Your task to perform on an android device: add a contact in the contacts app Image 0: 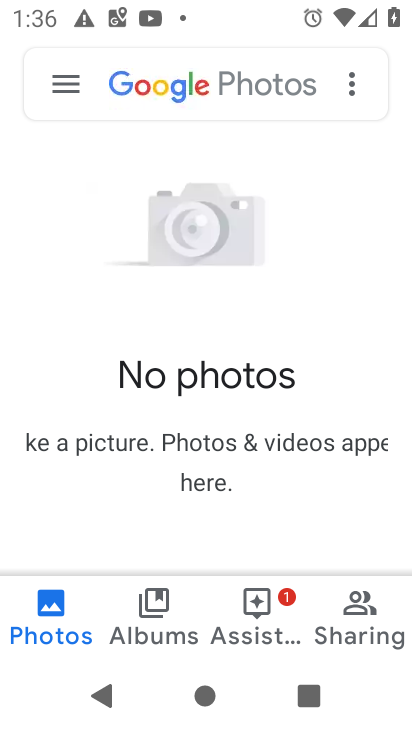
Step 0: press back button
Your task to perform on an android device: add a contact in the contacts app Image 1: 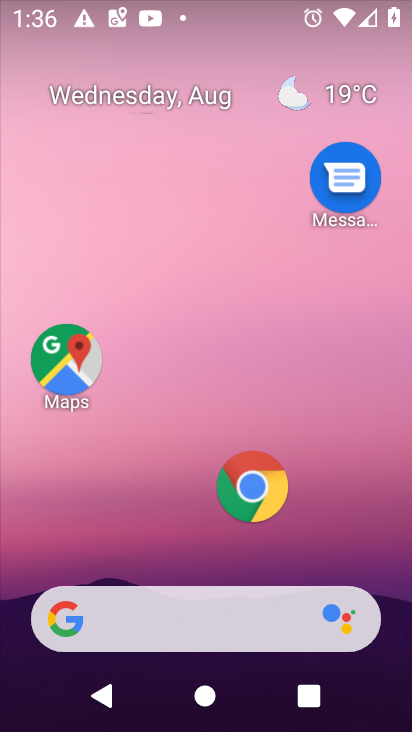
Step 1: drag from (169, 494) to (234, 20)
Your task to perform on an android device: add a contact in the contacts app Image 2: 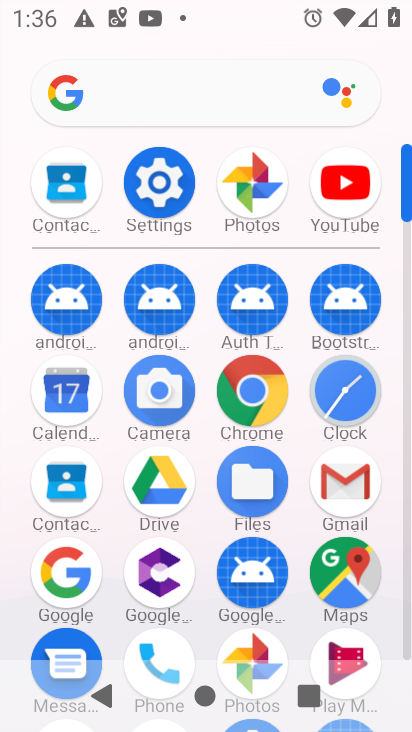
Step 2: click (62, 178)
Your task to perform on an android device: add a contact in the contacts app Image 3: 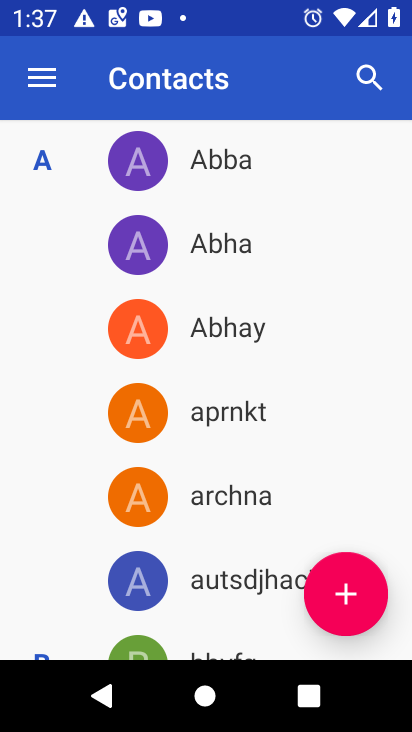
Step 3: click (361, 585)
Your task to perform on an android device: add a contact in the contacts app Image 4: 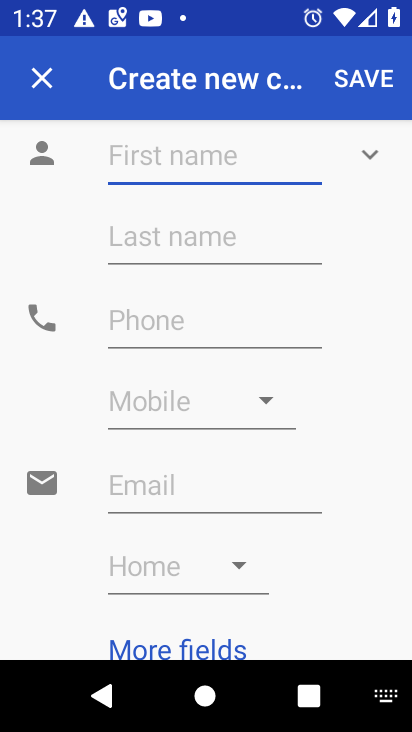
Step 4: click (124, 137)
Your task to perform on an android device: add a contact in the contacts app Image 5: 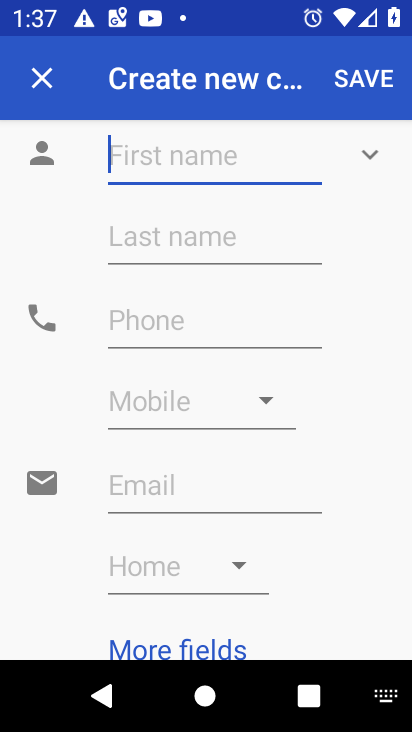
Step 5: type " v fvv"
Your task to perform on an android device: add a contact in the contacts app Image 6: 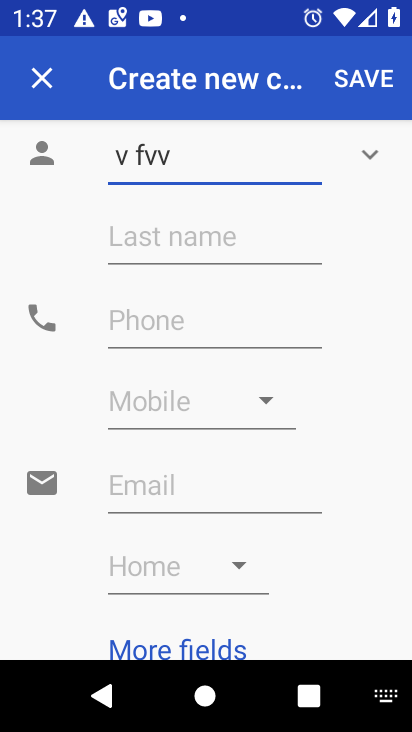
Step 6: click (145, 319)
Your task to perform on an android device: add a contact in the contacts app Image 7: 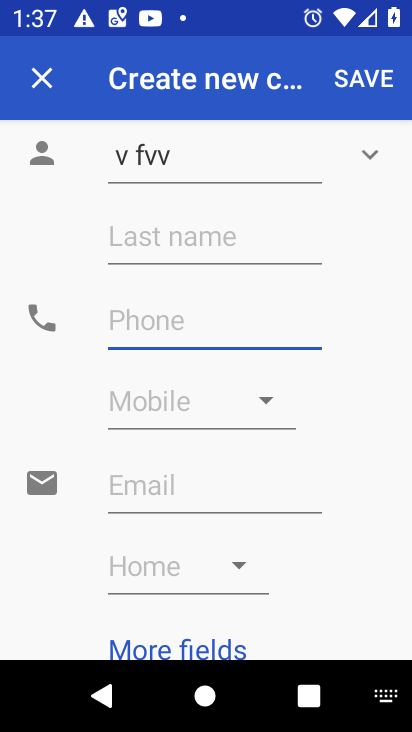
Step 7: type "566757"
Your task to perform on an android device: add a contact in the contacts app Image 8: 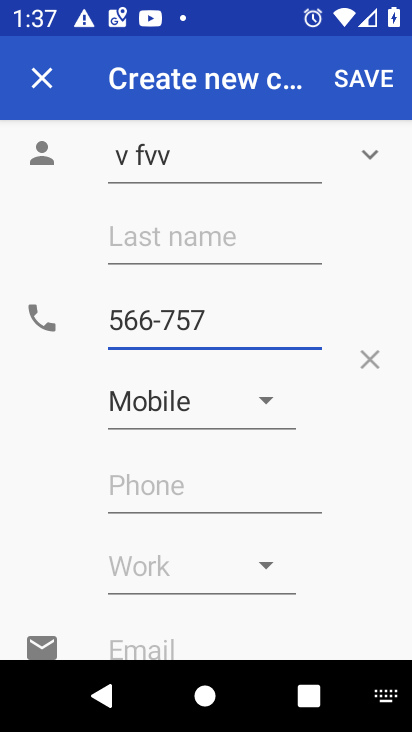
Step 8: click (377, 72)
Your task to perform on an android device: add a contact in the contacts app Image 9: 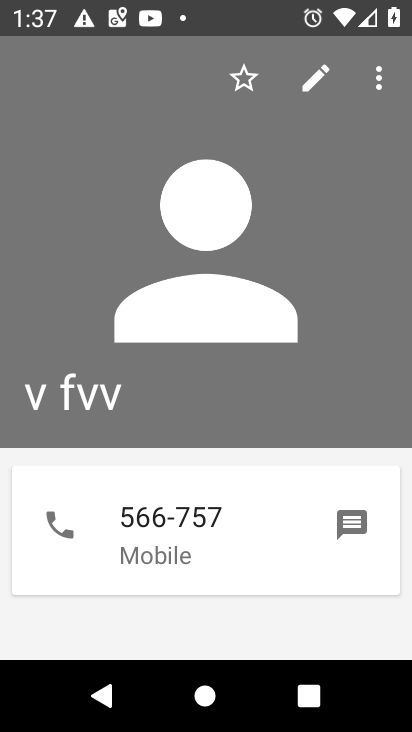
Step 9: task complete